Your task to perform on an android device: check the backup settings in the google photos Image 0: 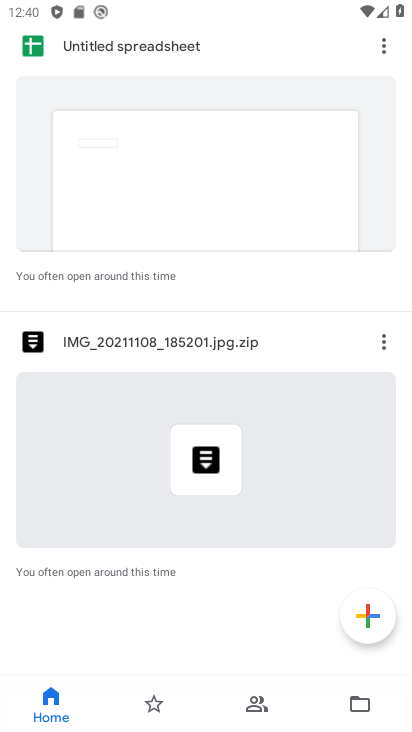
Step 0: drag from (181, 536) to (210, 251)
Your task to perform on an android device: check the backup settings in the google photos Image 1: 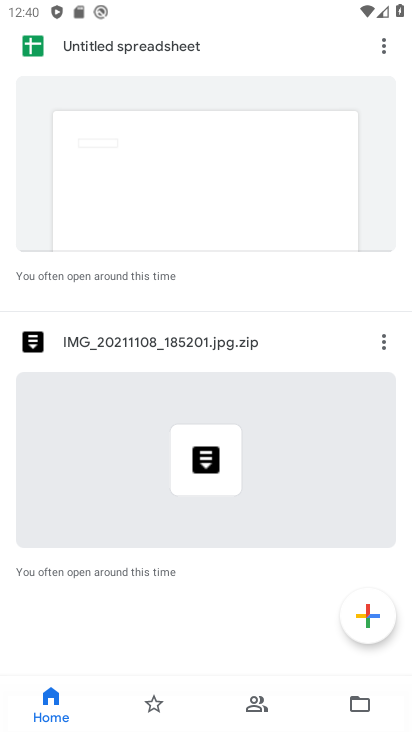
Step 1: press home button
Your task to perform on an android device: check the backup settings in the google photos Image 2: 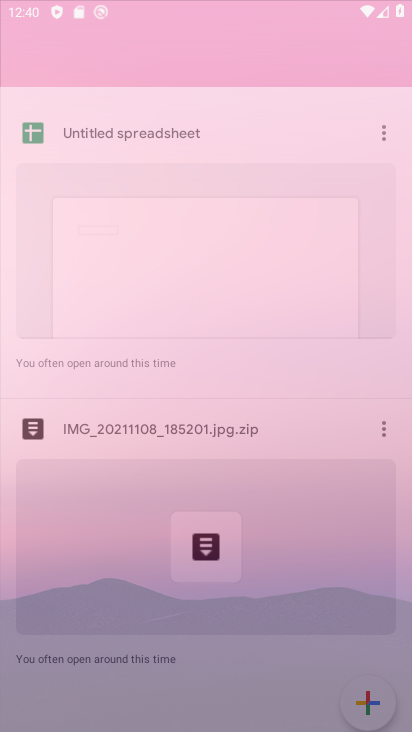
Step 2: drag from (207, 563) to (225, 326)
Your task to perform on an android device: check the backup settings in the google photos Image 3: 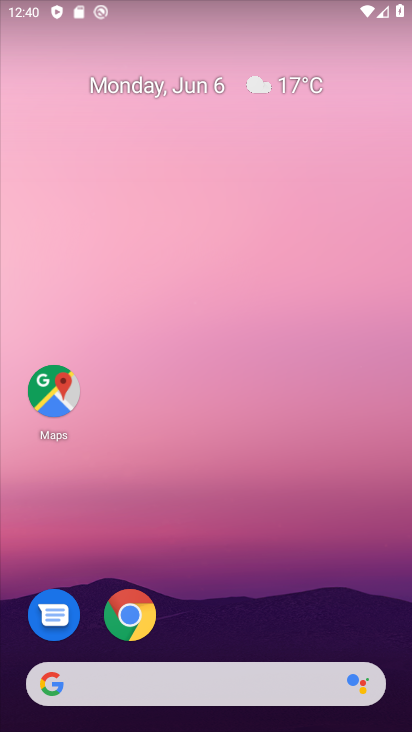
Step 3: drag from (202, 614) to (252, 124)
Your task to perform on an android device: check the backup settings in the google photos Image 4: 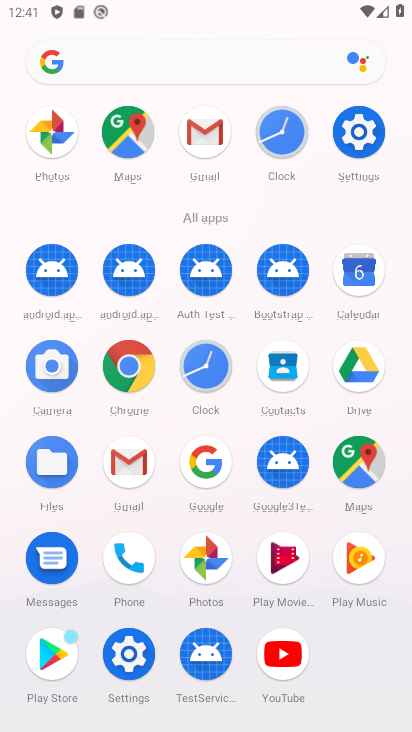
Step 4: click (209, 550)
Your task to perform on an android device: check the backup settings in the google photos Image 5: 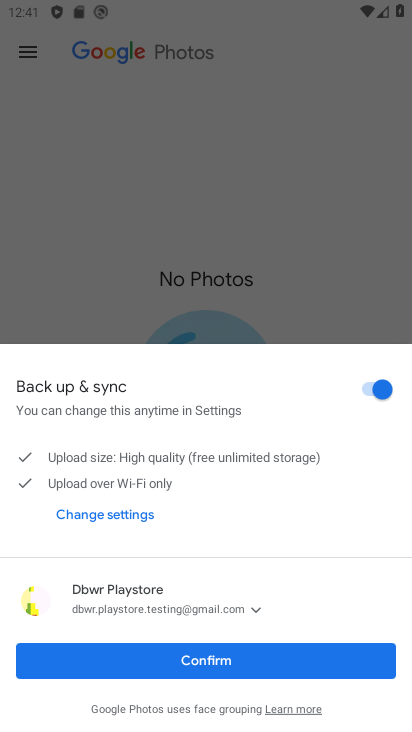
Step 5: click (214, 655)
Your task to perform on an android device: check the backup settings in the google photos Image 6: 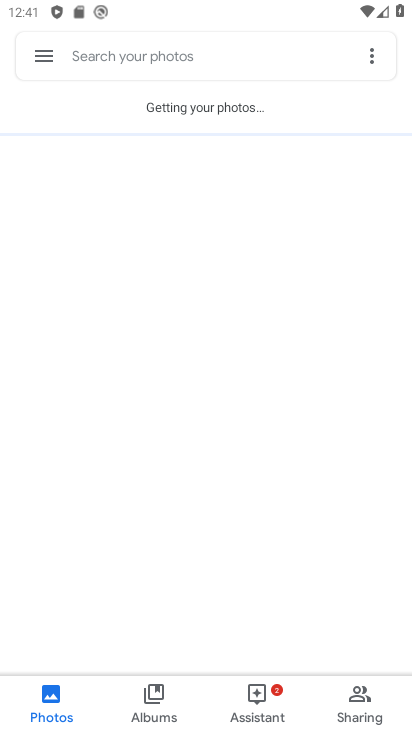
Step 6: click (231, 399)
Your task to perform on an android device: check the backup settings in the google photos Image 7: 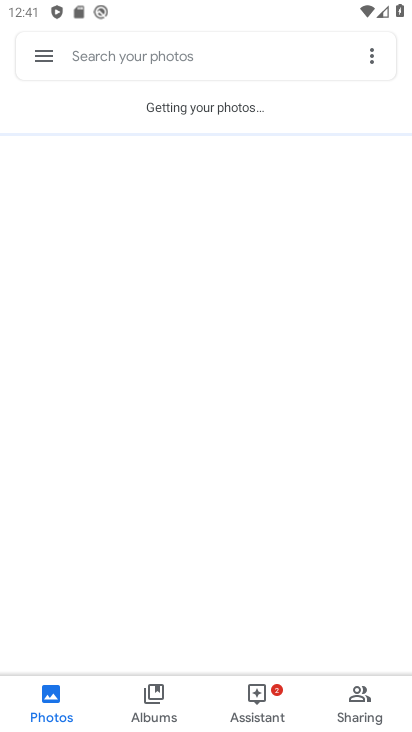
Step 7: click (41, 70)
Your task to perform on an android device: check the backup settings in the google photos Image 8: 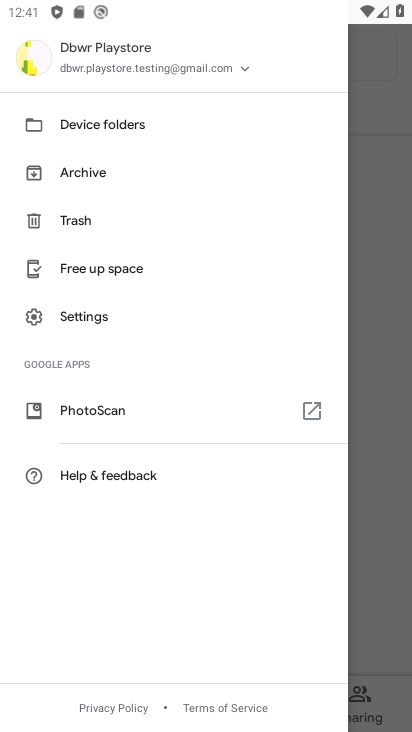
Step 8: click (98, 322)
Your task to perform on an android device: check the backup settings in the google photos Image 9: 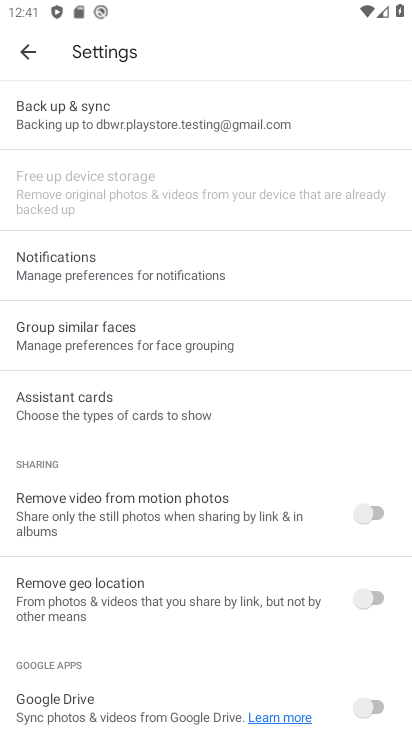
Step 9: click (114, 117)
Your task to perform on an android device: check the backup settings in the google photos Image 10: 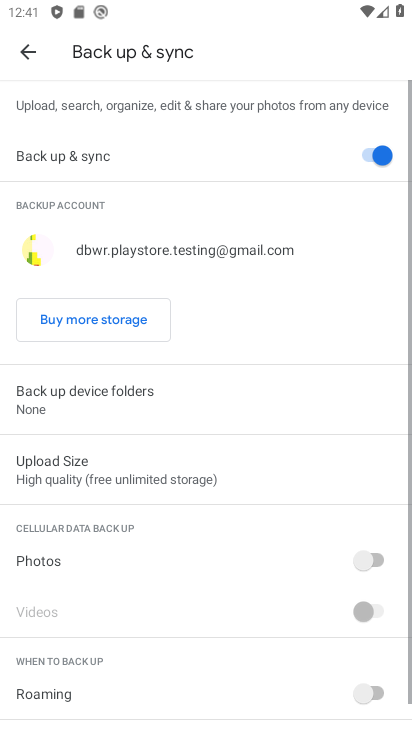
Step 10: task complete